Your task to perform on an android device: uninstall "Pluto TV - Live TV and Movies" Image 0: 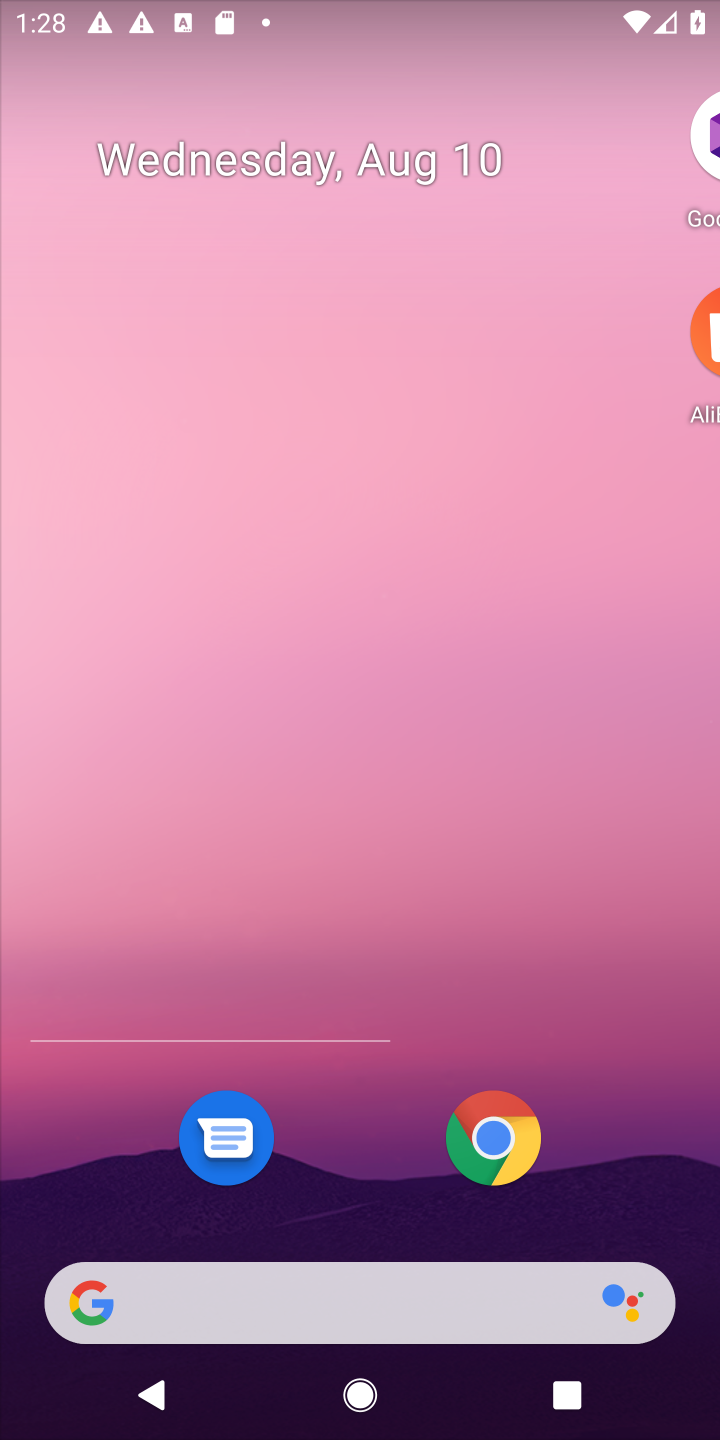
Step 0: press home button
Your task to perform on an android device: uninstall "Pluto TV - Live TV and Movies" Image 1: 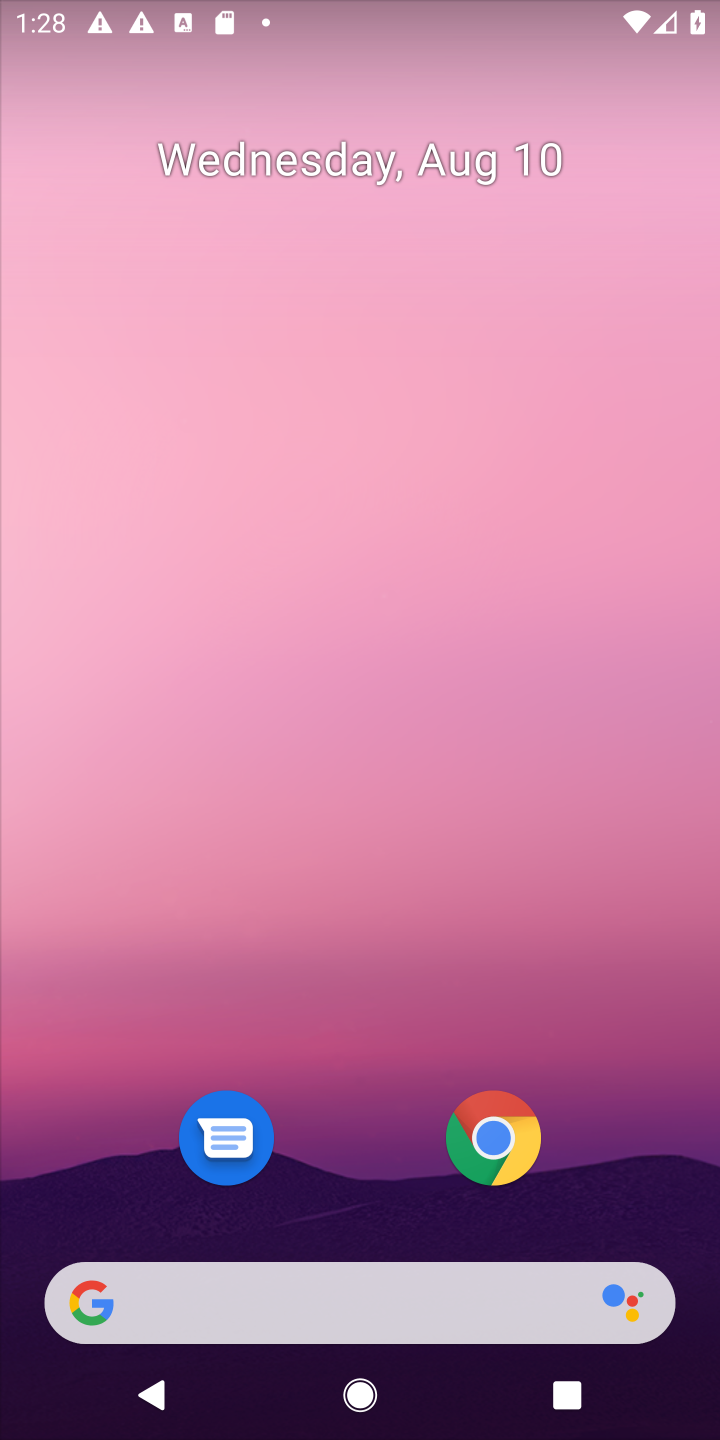
Step 1: drag from (645, 1177) to (672, 116)
Your task to perform on an android device: uninstall "Pluto TV - Live TV and Movies" Image 2: 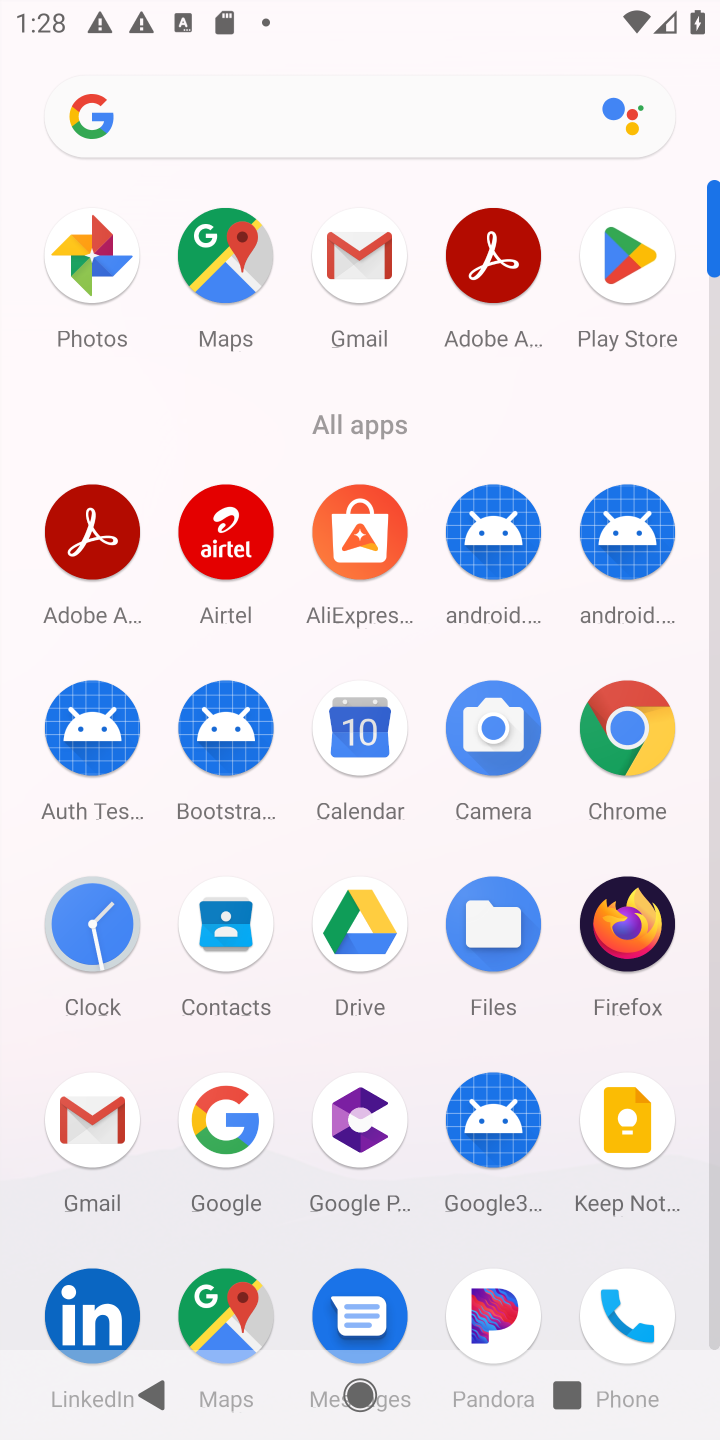
Step 2: click (636, 253)
Your task to perform on an android device: uninstall "Pluto TV - Live TV and Movies" Image 3: 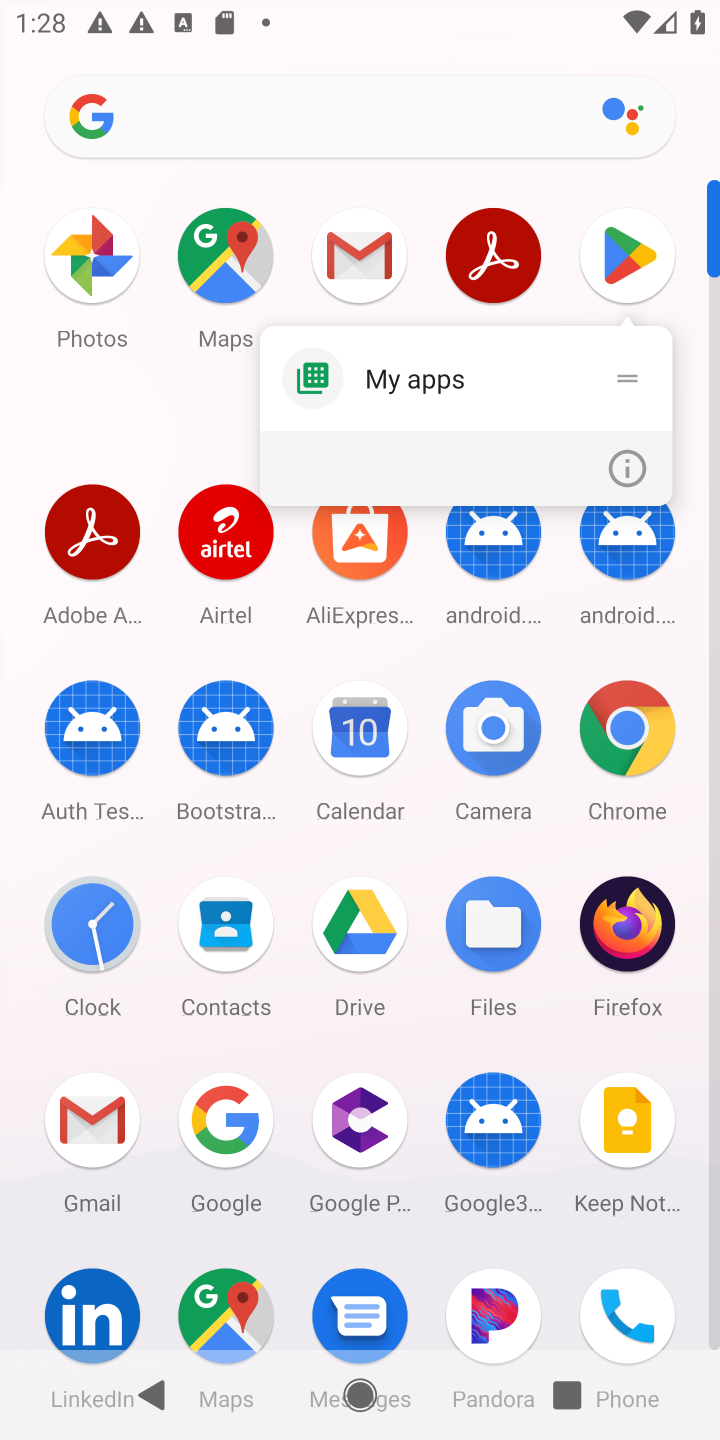
Step 3: click (632, 255)
Your task to perform on an android device: uninstall "Pluto TV - Live TV and Movies" Image 4: 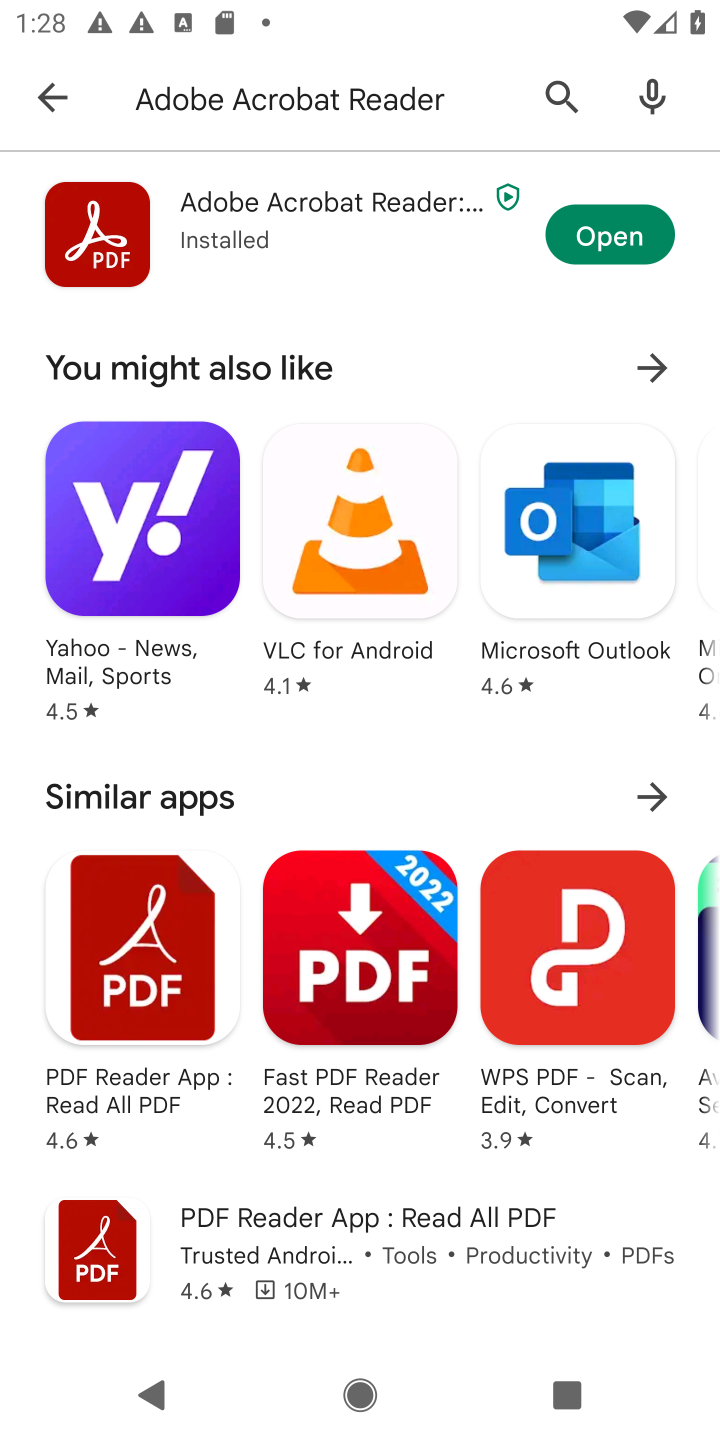
Step 4: click (552, 82)
Your task to perform on an android device: uninstall "Pluto TV - Live TV and Movies" Image 5: 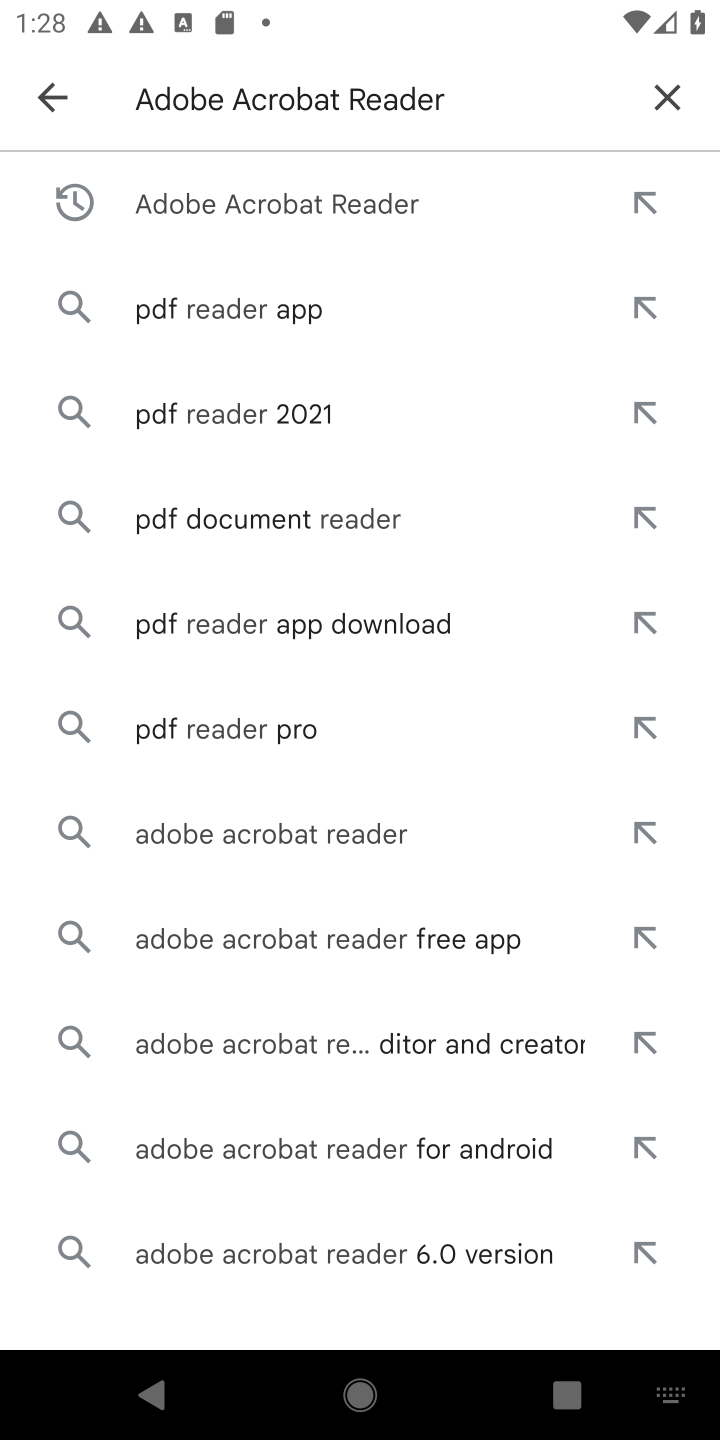
Step 5: click (651, 90)
Your task to perform on an android device: uninstall "Pluto TV - Live TV and Movies" Image 6: 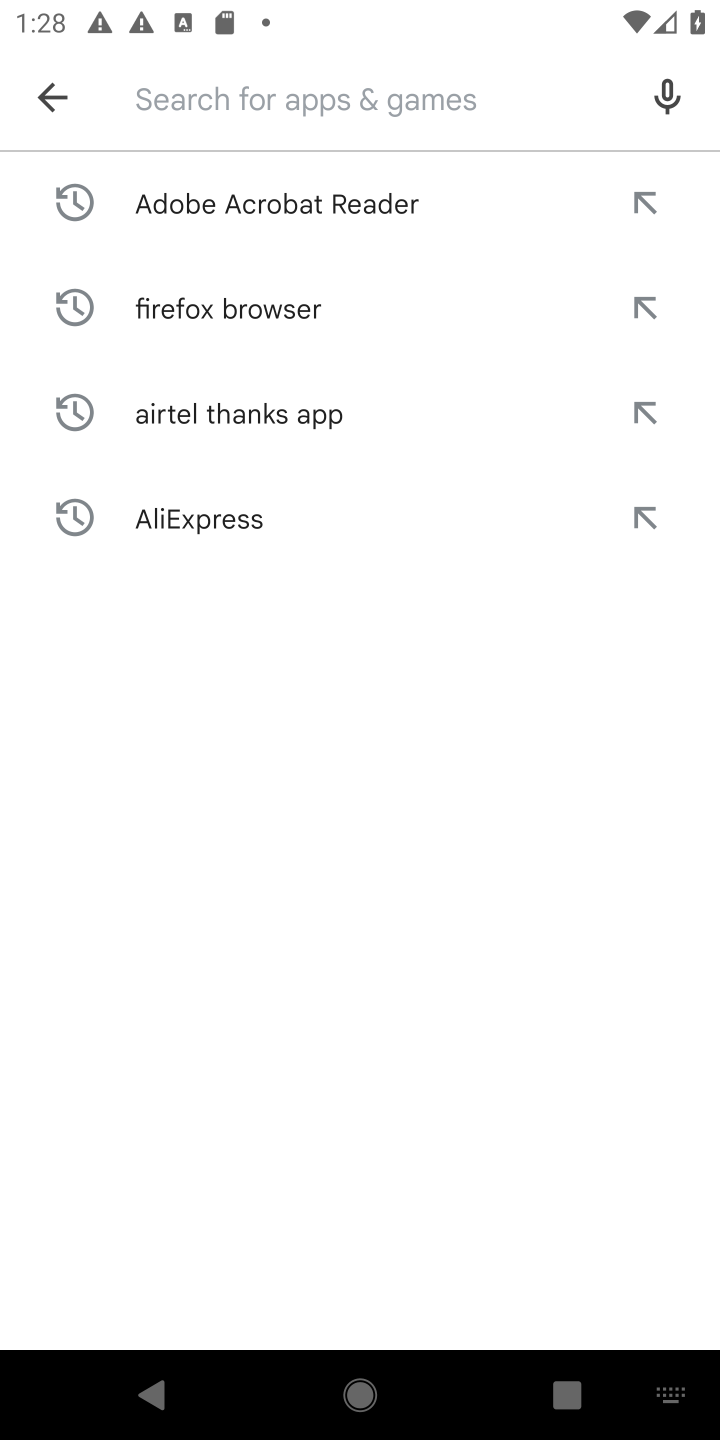
Step 6: type "Pluto TV - Live TV and Movies"
Your task to perform on an android device: uninstall "Pluto TV - Live TV and Movies" Image 7: 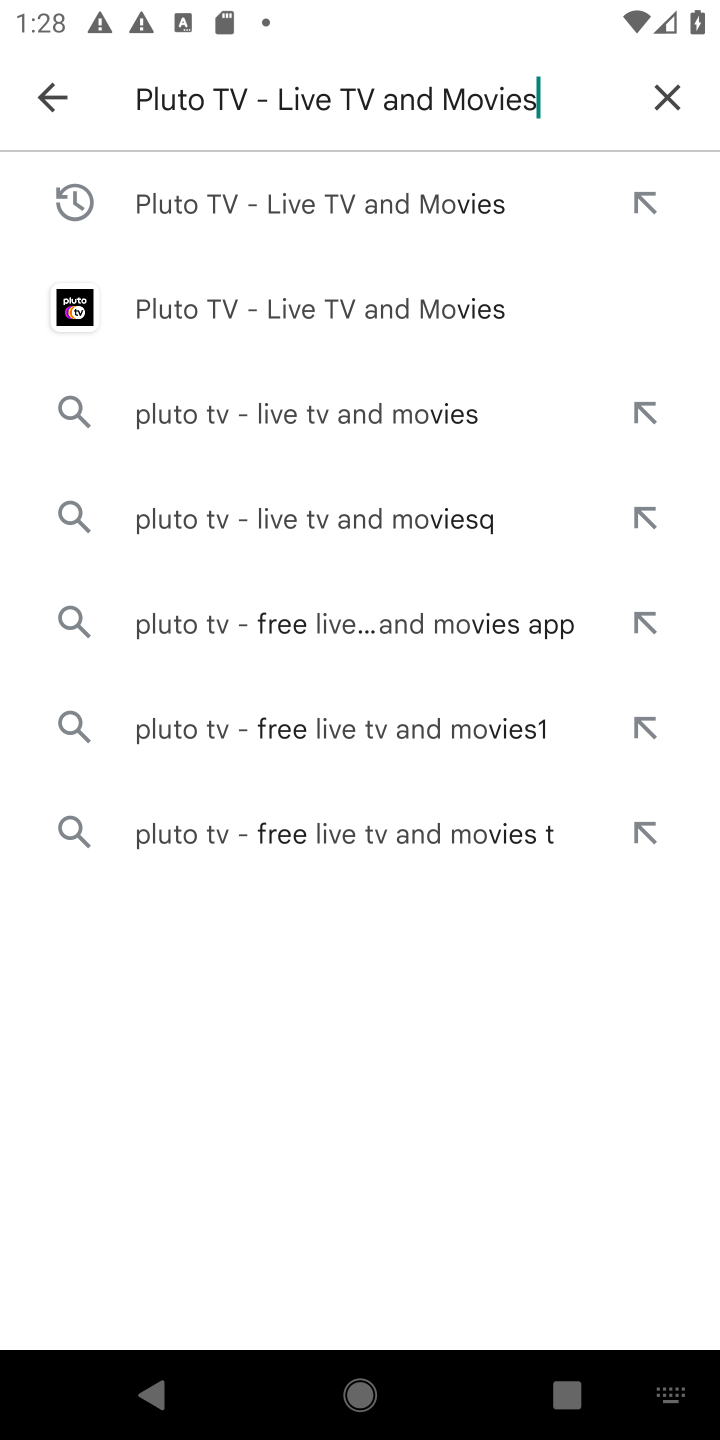
Step 7: press enter
Your task to perform on an android device: uninstall "Pluto TV - Live TV and Movies" Image 8: 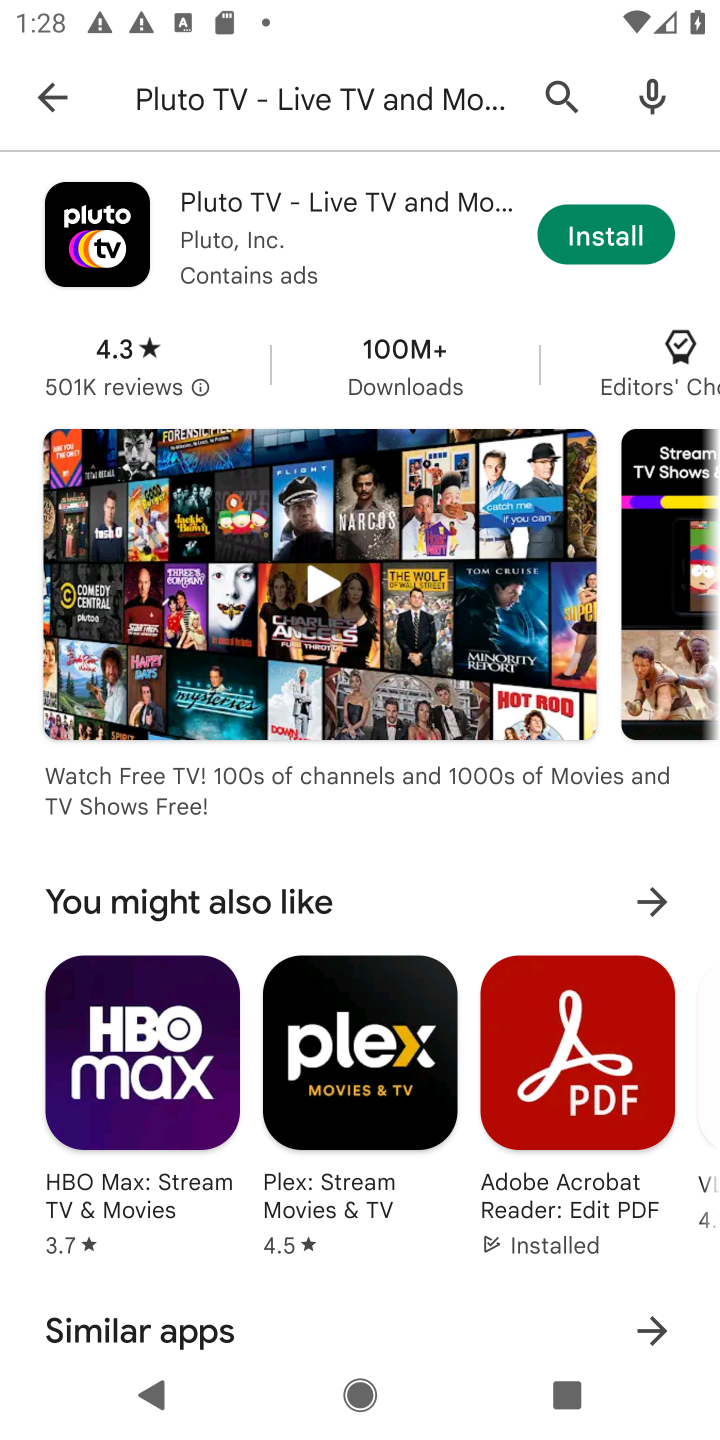
Step 8: task complete